Your task to perform on an android device: install app "Pluto TV - Live TV and Movies" Image 0: 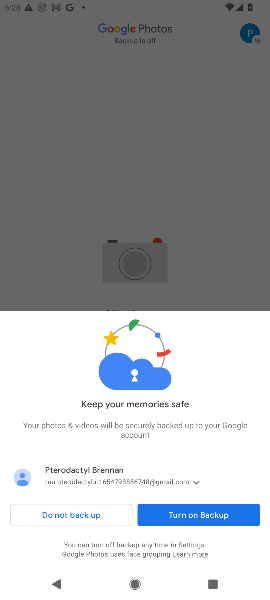
Step 0: press home button
Your task to perform on an android device: install app "Pluto TV - Live TV and Movies" Image 1: 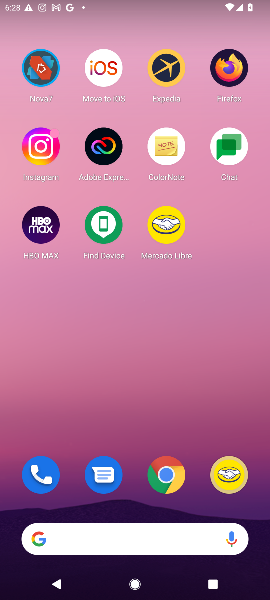
Step 1: drag from (153, 522) to (156, 176)
Your task to perform on an android device: install app "Pluto TV - Live TV and Movies" Image 2: 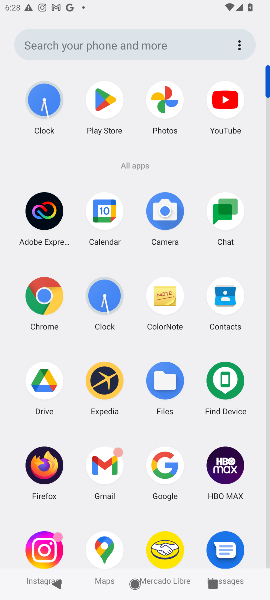
Step 2: click (104, 105)
Your task to perform on an android device: install app "Pluto TV - Live TV and Movies" Image 3: 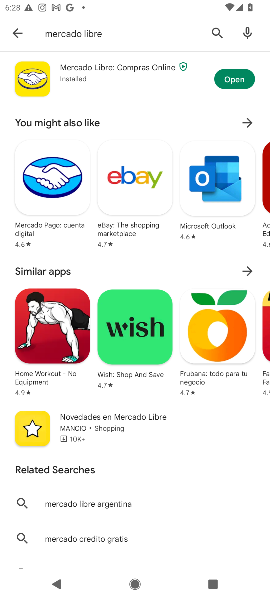
Step 3: drag from (219, 28) to (248, 28)
Your task to perform on an android device: install app "Pluto TV - Live TV and Movies" Image 4: 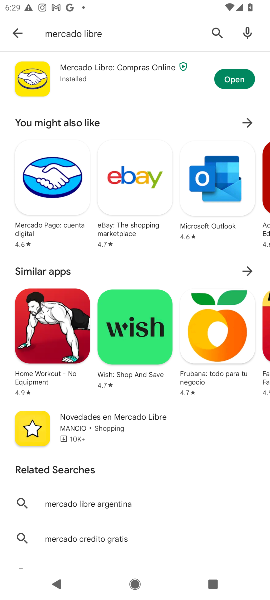
Step 4: click (217, 32)
Your task to perform on an android device: install app "Pluto TV - Live TV and Movies" Image 5: 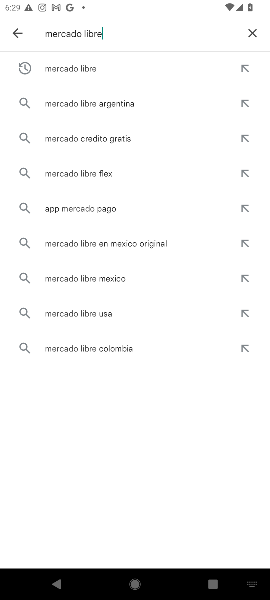
Step 5: click (253, 34)
Your task to perform on an android device: install app "Pluto TV - Live TV and Movies" Image 6: 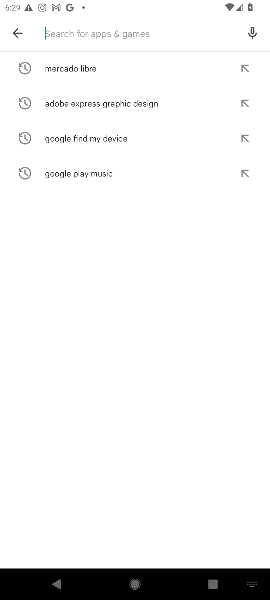
Step 6: type "Pluto TV - Live TV and Movies"
Your task to perform on an android device: install app "Pluto TV - Live TV and Movies" Image 7: 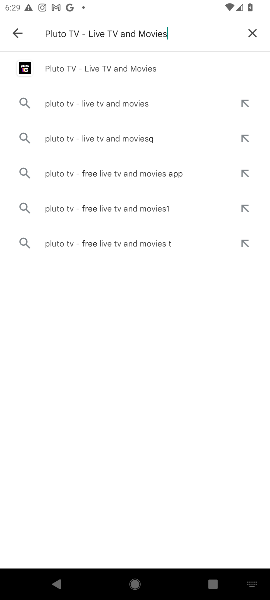
Step 7: click (118, 67)
Your task to perform on an android device: install app "Pluto TV - Live TV and Movies" Image 8: 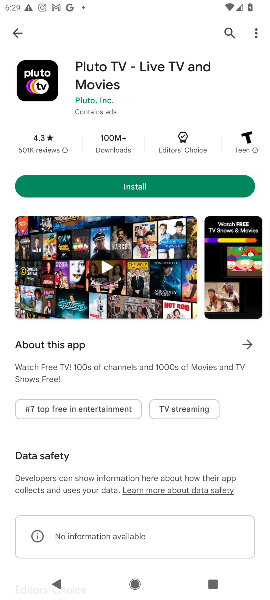
Step 8: click (139, 184)
Your task to perform on an android device: install app "Pluto TV - Live TV and Movies" Image 9: 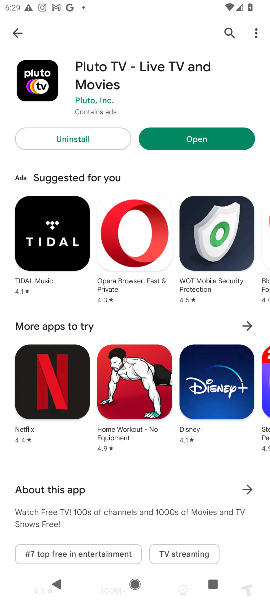
Step 9: task complete